Your task to perform on an android device: Go to Amazon Image 0: 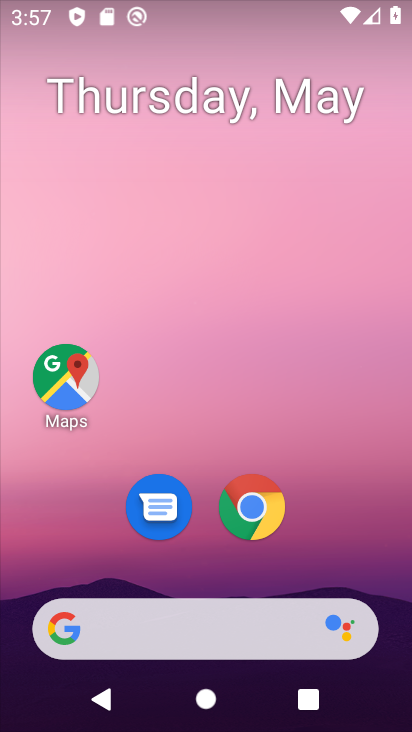
Step 0: click (256, 504)
Your task to perform on an android device: Go to Amazon Image 1: 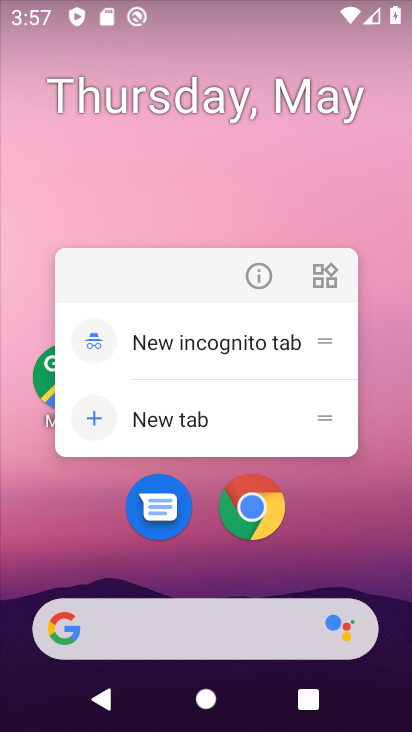
Step 1: click (254, 490)
Your task to perform on an android device: Go to Amazon Image 2: 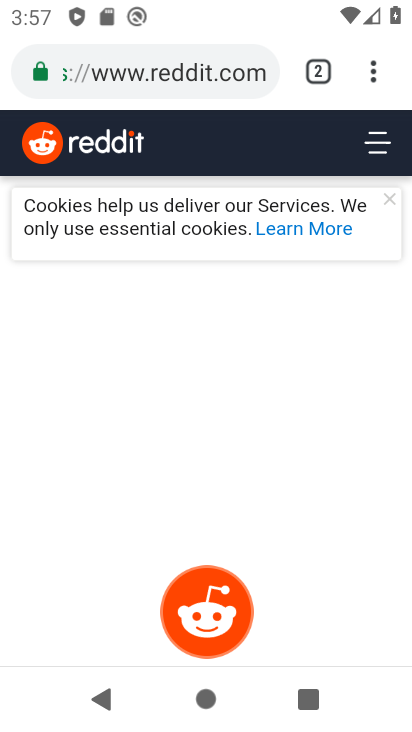
Step 2: click (371, 75)
Your task to perform on an android device: Go to Amazon Image 3: 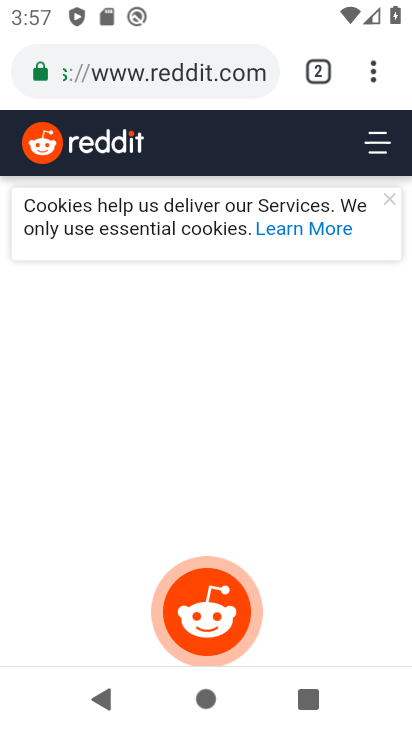
Step 3: click (116, 92)
Your task to perform on an android device: Go to Amazon Image 4: 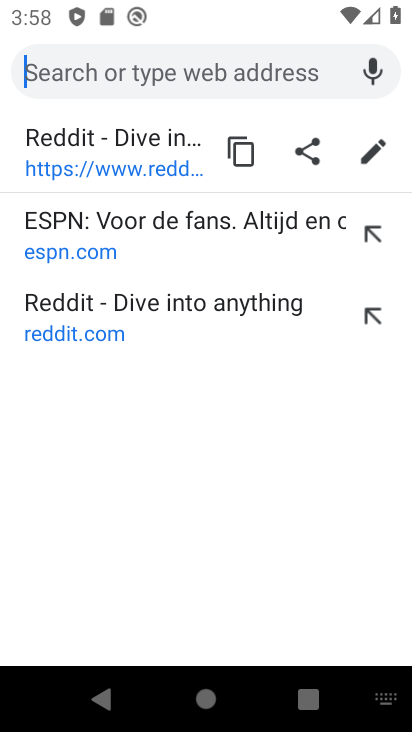
Step 4: type "amazon"
Your task to perform on an android device: Go to Amazon Image 5: 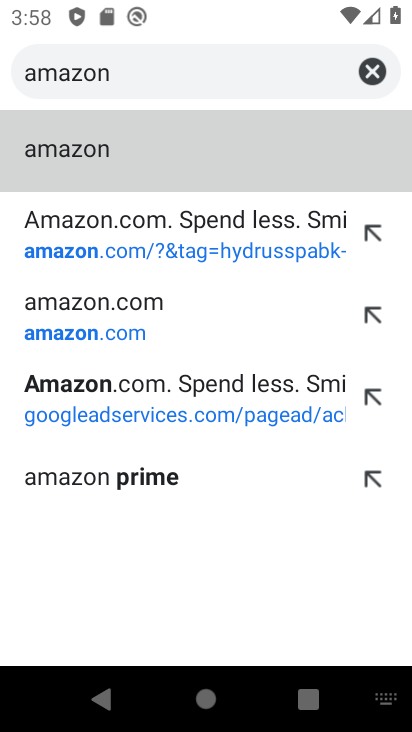
Step 5: click (42, 152)
Your task to perform on an android device: Go to Amazon Image 6: 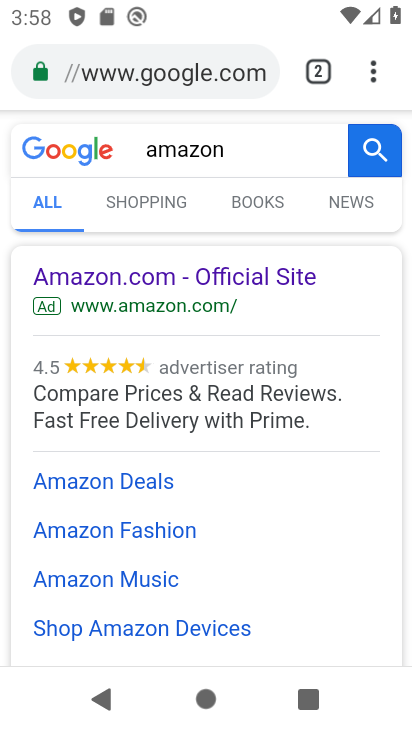
Step 6: click (71, 273)
Your task to perform on an android device: Go to Amazon Image 7: 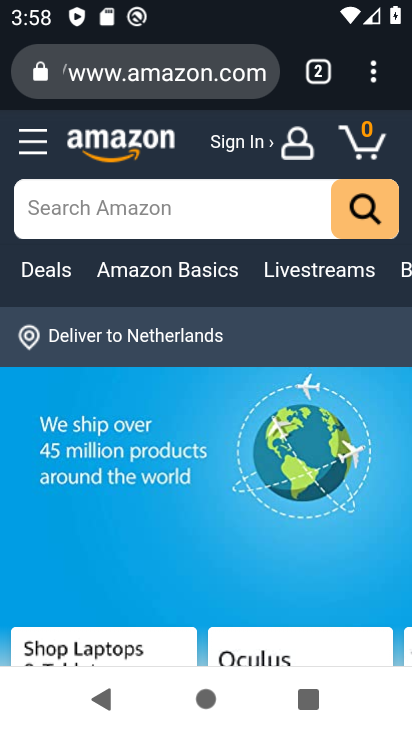
Step 7: task complete